Your task to perform on an android device: toggle notifications settings in the gmail app Image 0: 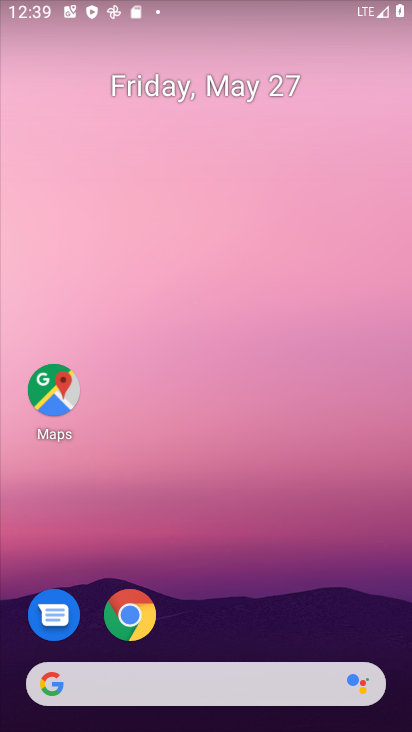
Step 0: drag from (106, 595) to (346, 12)
Your task to perform on an android device: toggle notifications settings in the gmail app Image 1: 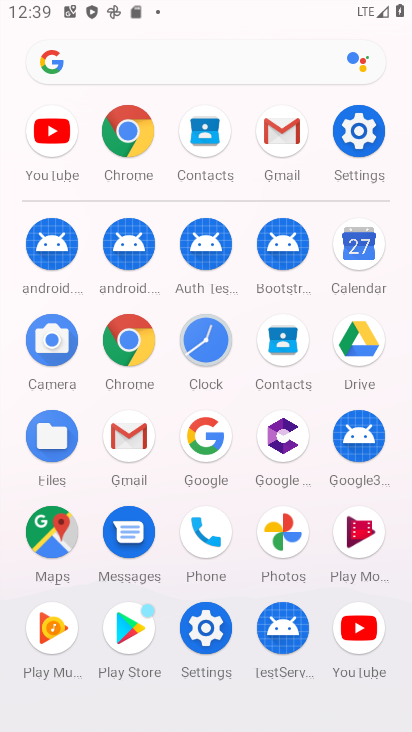
Step 1: click (129, 422)
Your task to perform on an android device: toggle notifications settings in the gmail app Image 2: 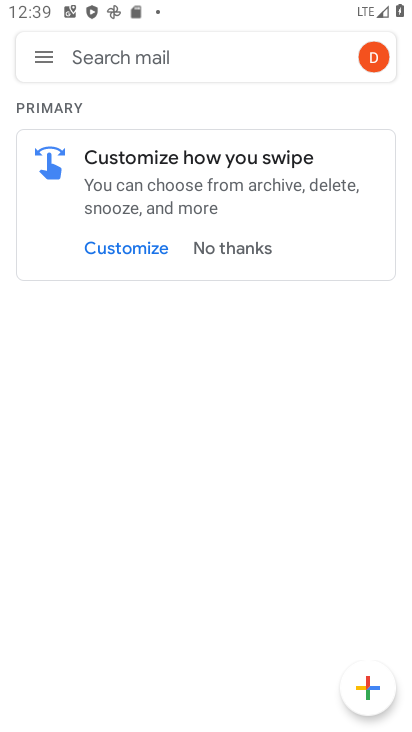
Step 2: click (39, 44)
Your task to perform on an android device: toggle notifications settings in the gmail app Image 3: 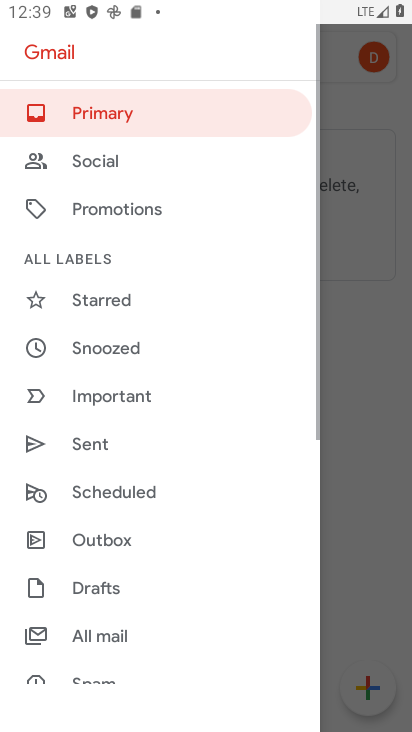
Step 3: drag from (113, 558) to (131, 96)
Your task to perform on an android device: toggle notifications settings in the gmail app Image 4: 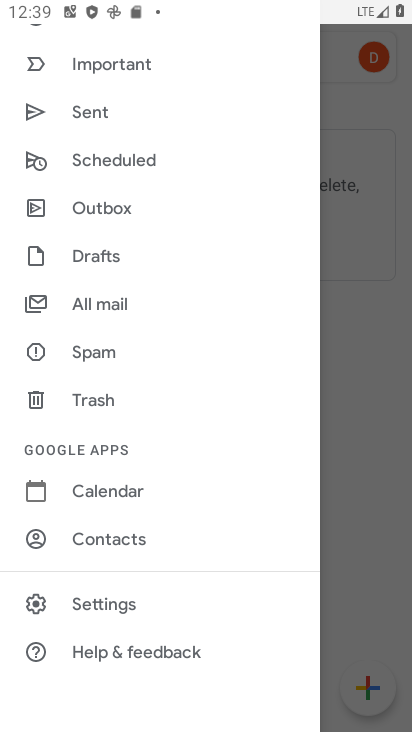
Step 4: click (135, 594)
Your task to perform on an android device: toggle notifications settings in the gmail app Image 5: 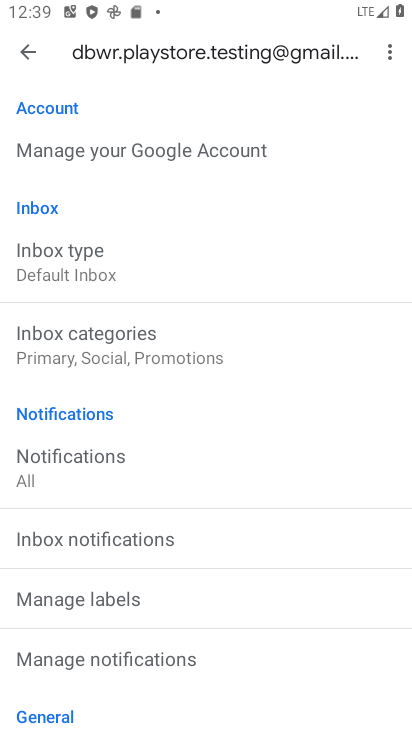
Step 5: drag from (162, 684) to (140, 493)
Your task to perform on an android device: toggle notifications settings in the gmail app Image 6: 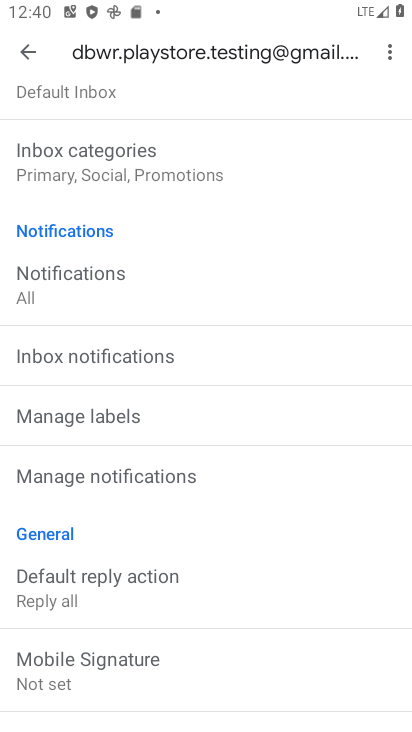
Step 6: click (126, 468)
Your task to perform on an android device: toggle notifications settings in the gmail app Image 7: 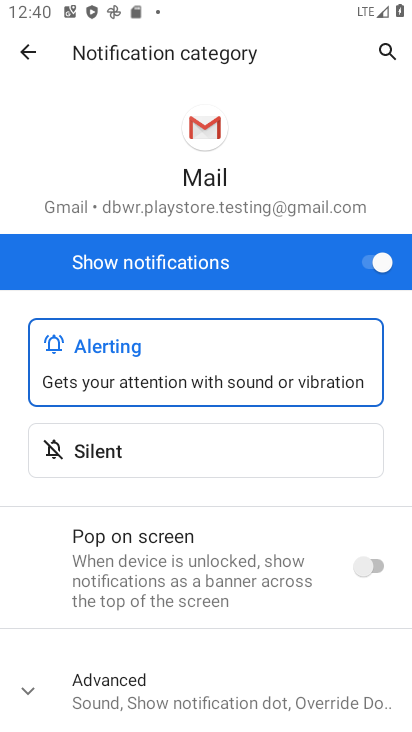
Step 7: task complete